Your task to perform on an android device: toggle translation in the chrome app Image 0: 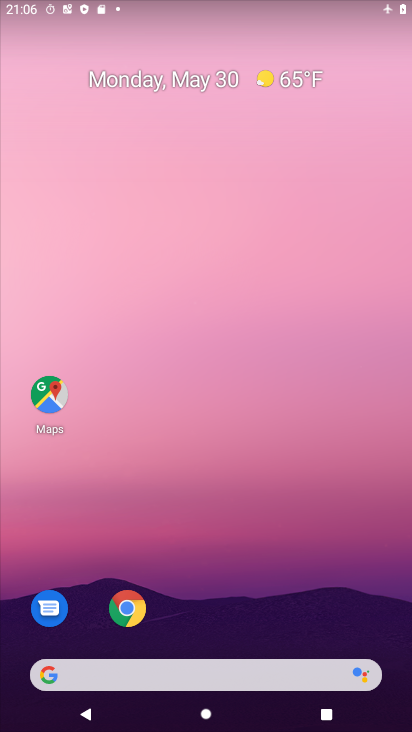
Step 0: click (141, 613)
Your task to perform on an android device: toggle translation in the chrome app Image 1: 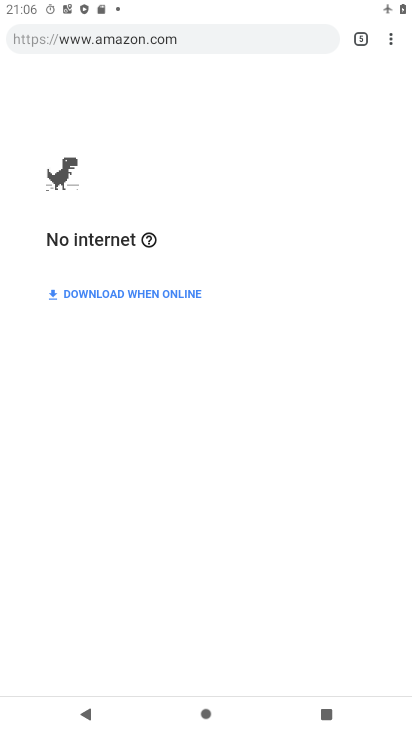
Step 1: click (384, 42)
Your task to perform on an android device: toggle translation in the chrome app Image 2: 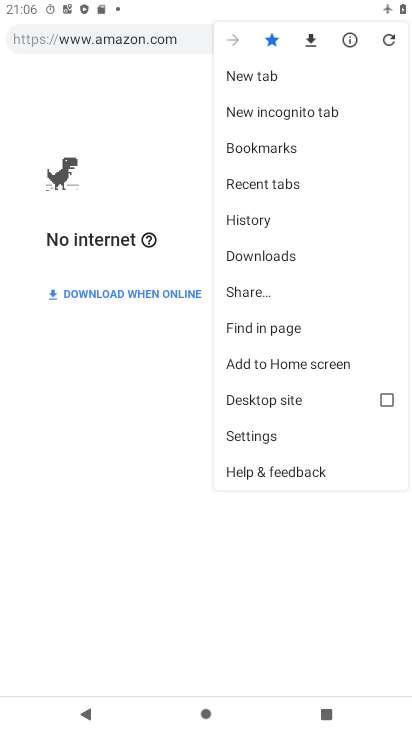
Step 2: click (279, 439)
Your task to perform on an android device: toggle translation in the chrome app Image 3: 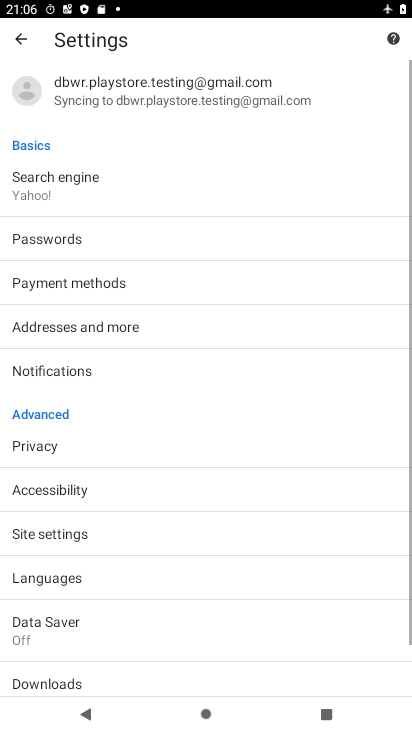
Step 3: drag from (207, 584) to (230, 412)
Your task to perform on an android device: toggle translation in the chrome app Image 4: 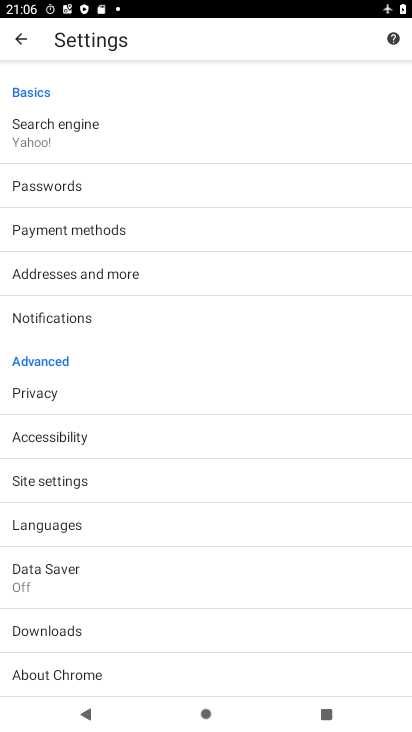
Step 4: drag from (93, 634) to (101, 459)
Your task to perform on an android device: toggle translation in the chrome app Image 5: 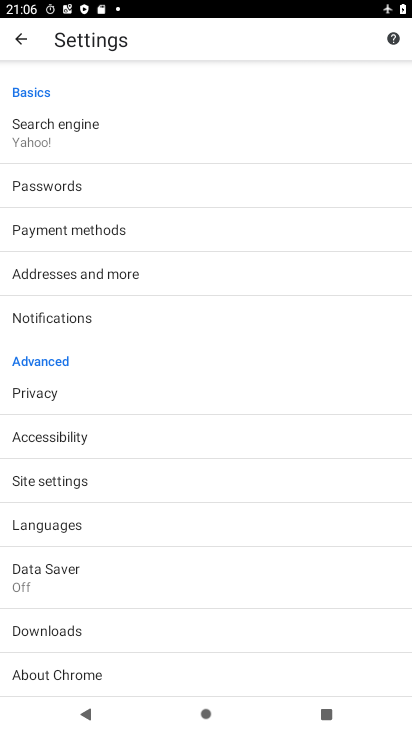
Step 5: click (81, 527)
Your task to perform on an android device: toggle translation in the chrome app Image 6: 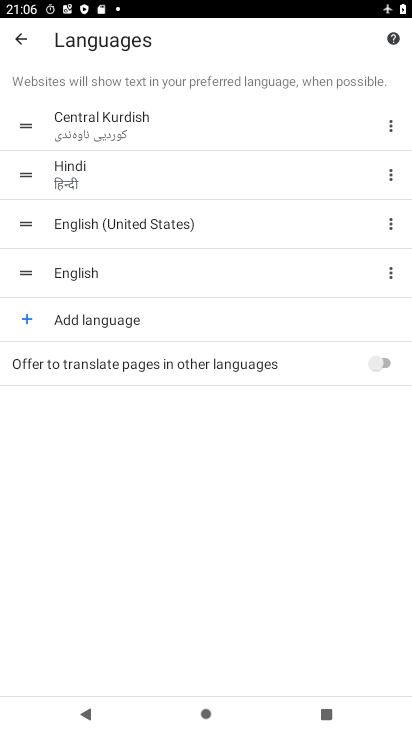
Step 6: click (390, 364)
Your task to perform on an android device: toggle translation in the chrome app Image 7: 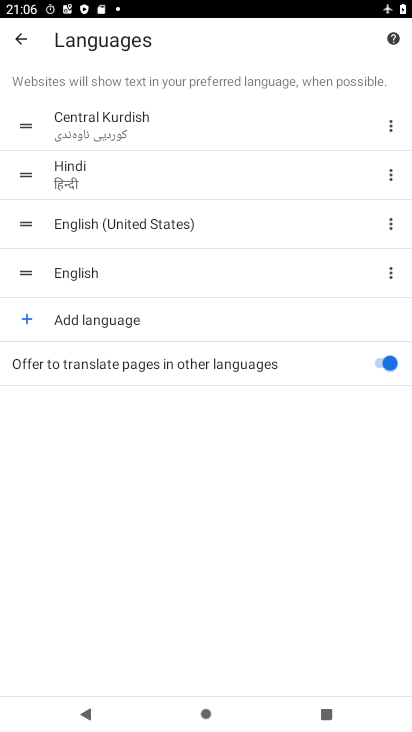
Step 7: task complete